Your task to perform on an android device: When is my next appointment? Image 0: 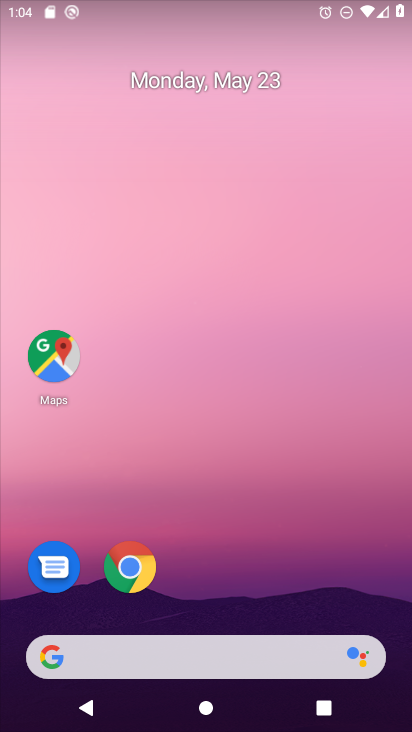
Step 0: click (269, 78)
Your task to perform on an android device: When is my next appointment? Image 1: 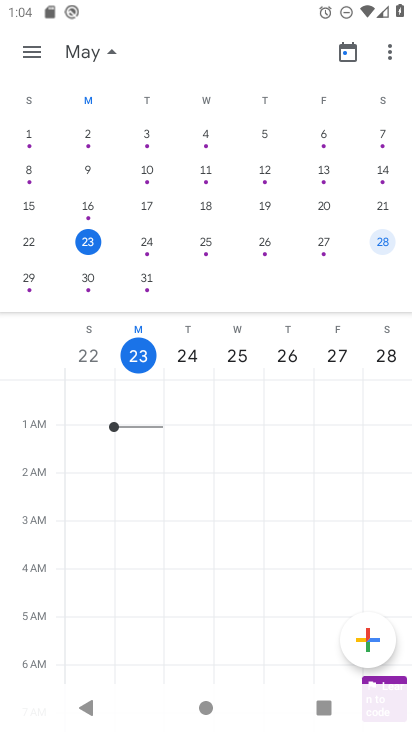
Step 1: task complete